Your task to perform on an android device: toggle wifi Image 0: 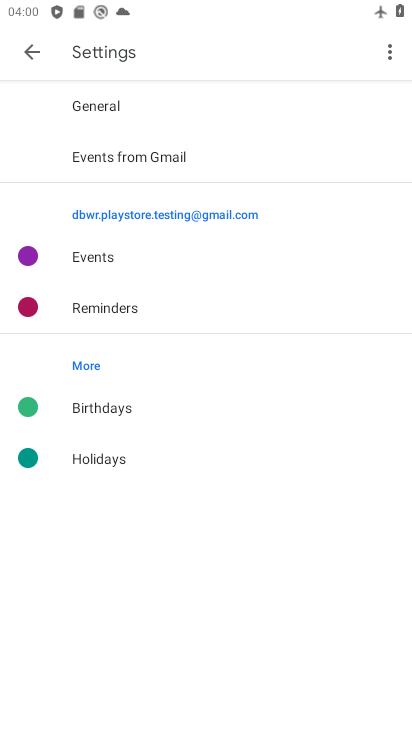
Step 0: press home button
Your task to perform on an android device: toggle wifi Image 1: 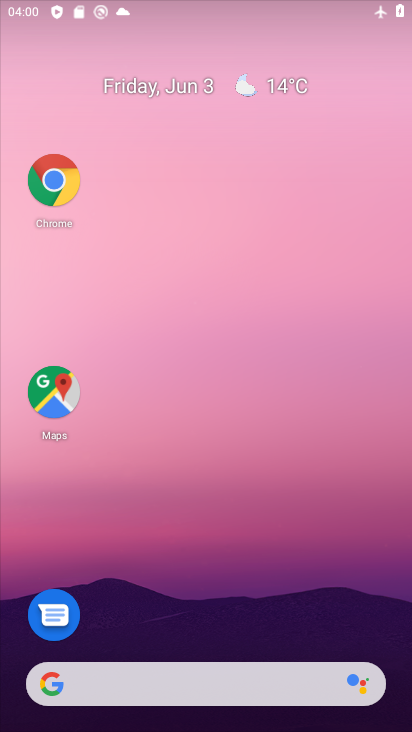
Step 1: drag from (268, 17) to (241, 660)
Your task to perform on an android device: toggle wifi Image 2: 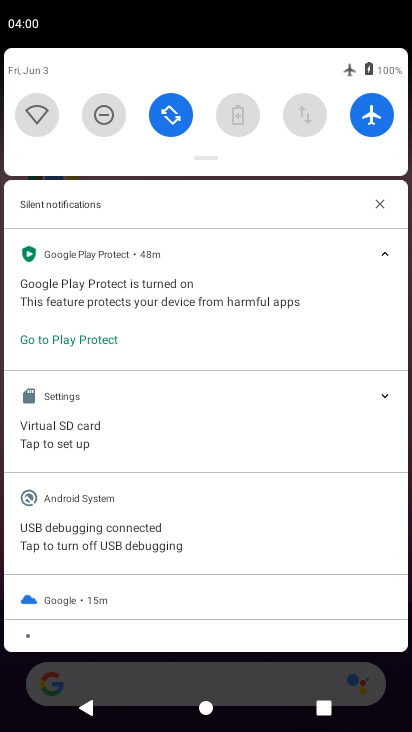
Step 2: click (37, 126)
Your task to perform on an android device: toggle wifi Image 3: 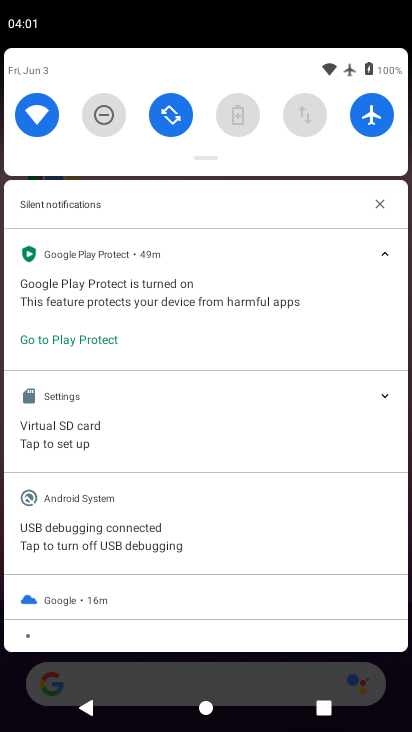
Step 3: task complete